Your task to perform on an android device: Go to Reddit.com Image 0: 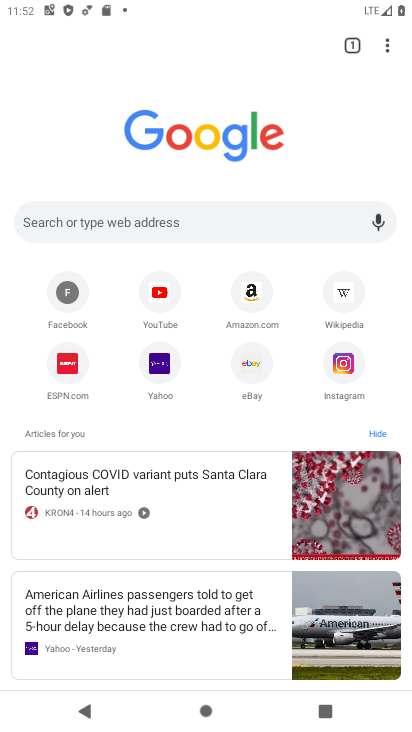
Step 0: click (229, 216)
Your task to perform on an android device: Go to Reddit.com Image 1: 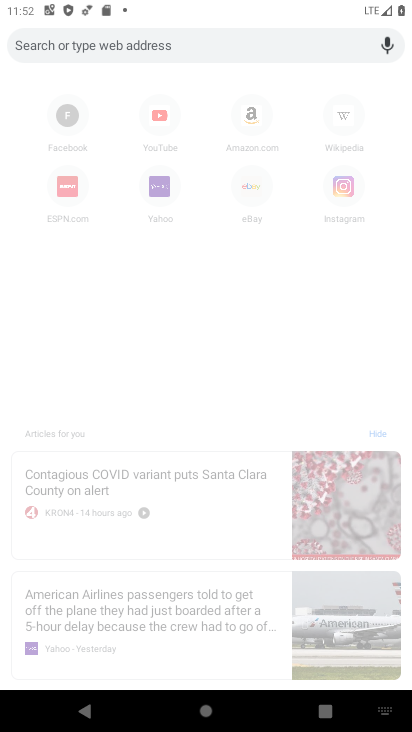
Step 1: type "reddit.com"
Your task to perform on an android device: Go to Reddit.com Image 2: 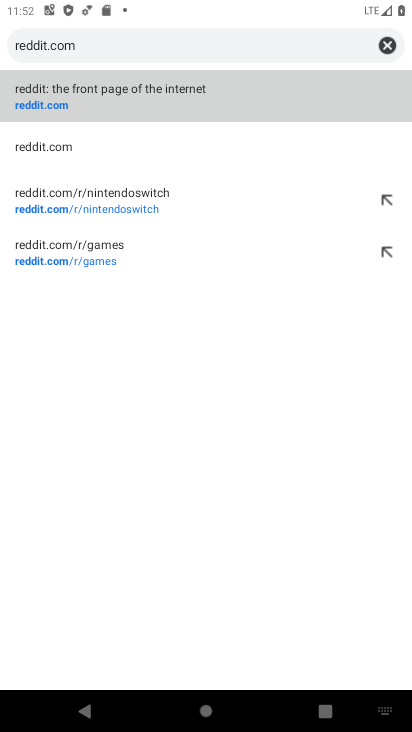
Step 2: click (176, 103)
Your task to perform on an android device: Go to Reddit.com Image 3: 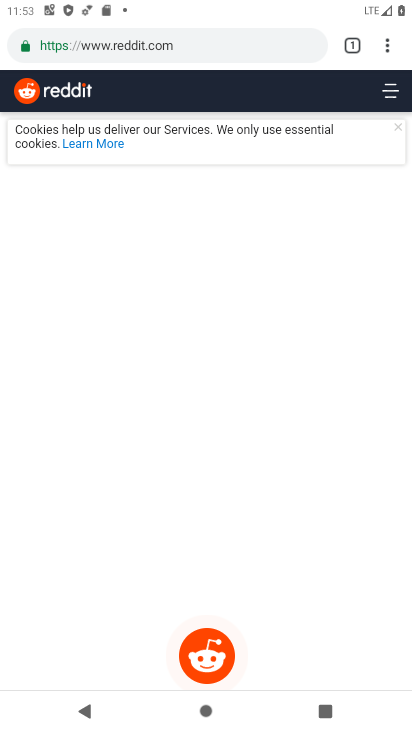
Step 3: task complete